Your task to perform on an android device: find snoozed emails in the gmail app Image 0: 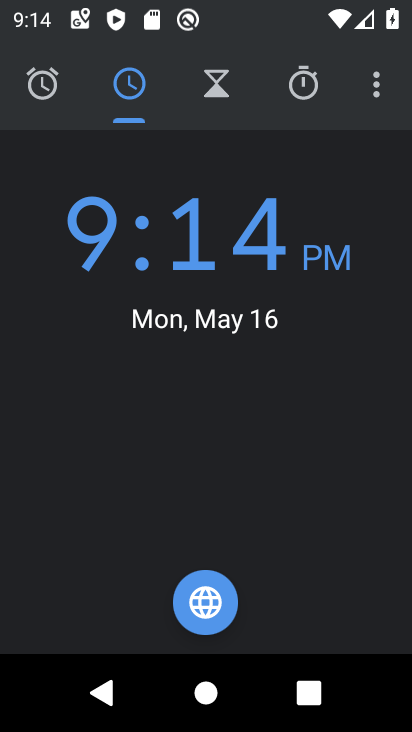
Step 0: press home button
Your task to perform on an android device: find snoozed emails in the gmail app Image 1: 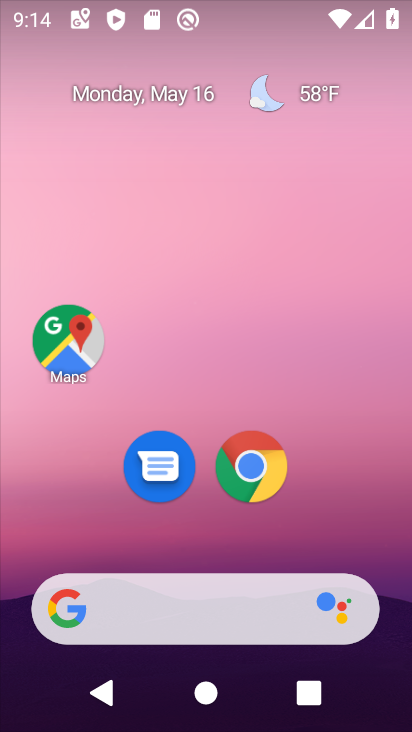
Step 1: drag from (316, 497) to (393, 59)
Your task to perform on an android device: find snoozed emails in the gmail app Image 2: 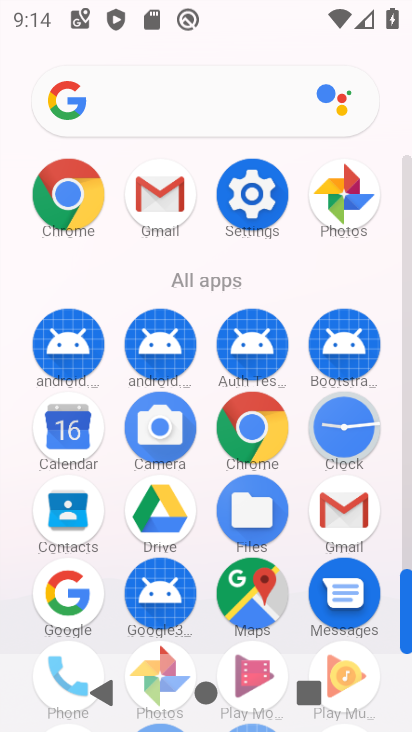
Step 2: click (158, 187)
Your task to perform on an android device: find snoozed emails in the gmail app Image 3: 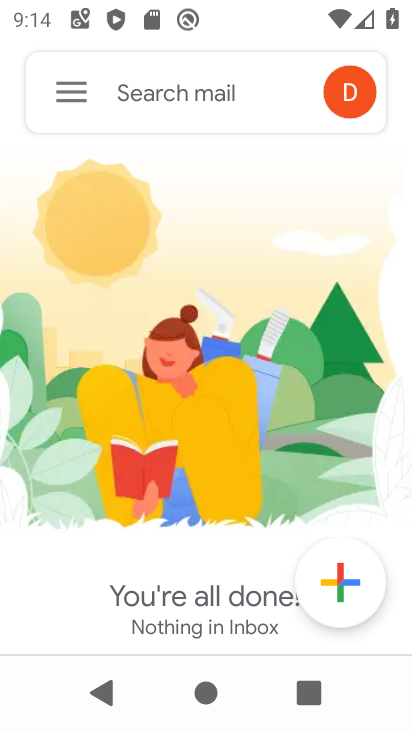
Step 3: click (63, 91)
Your task to perform on an android device: find snoozed emails in the gmail app Image 4: 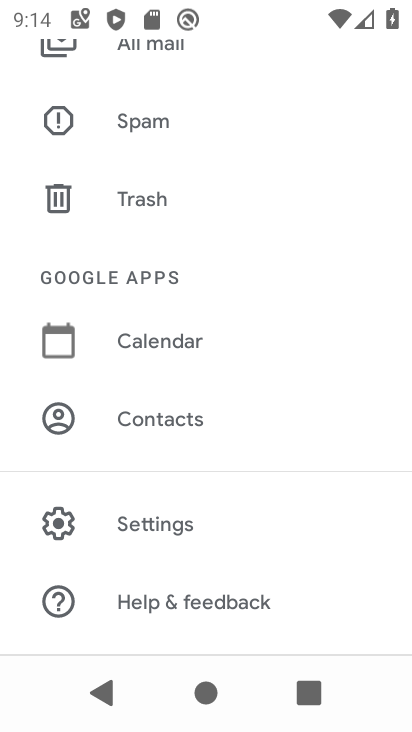
Step 4: drag from (279, 144) to (260, 499)
Your task to perform on an android device: find snoozed emails in the gmail app Image 5: 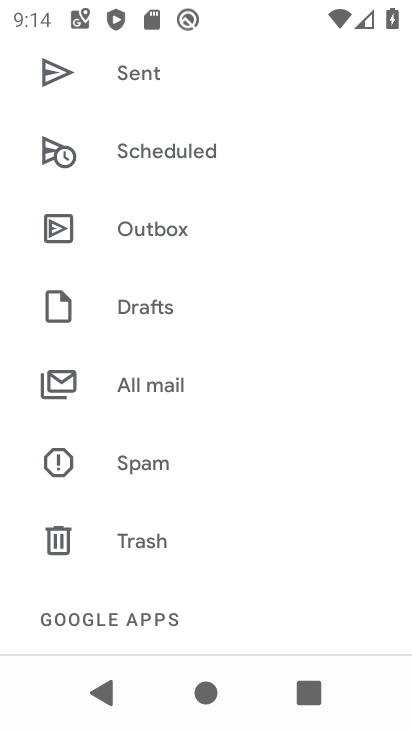
Step 5: drag from (281, 223) to (275, 450)
Your task to perform on an android device: find snoozed emails in the gmail app Image 6: 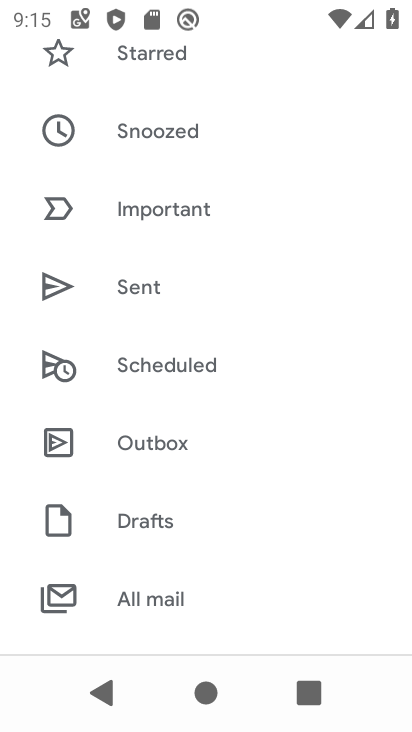
Step 6: click (172, 139)
Your task to perform on an android device: find snoozed emails in the gmail app Image 7: 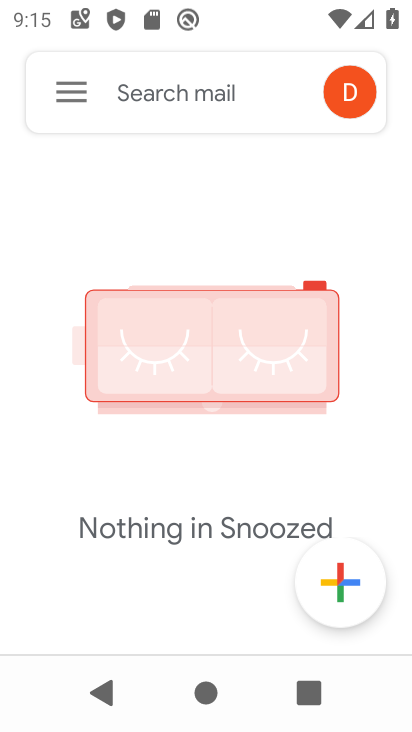
Step 7: task complete